Your task to perform on an android device: Open the stopwatch Image 0: 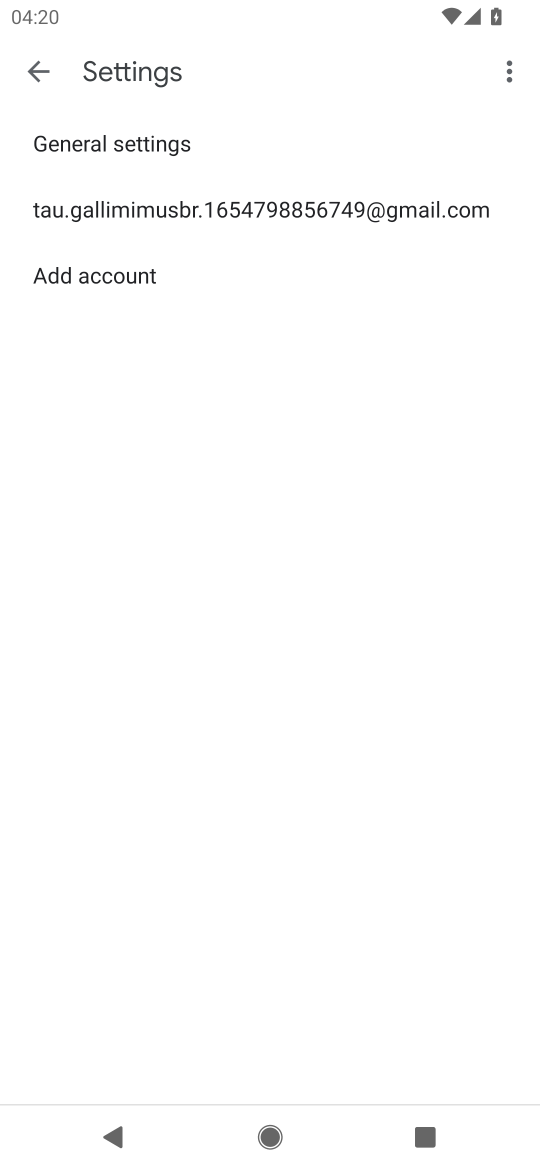
Step 0: press back button
Your task to perform on an android device: Open the stopwatch Image 1: 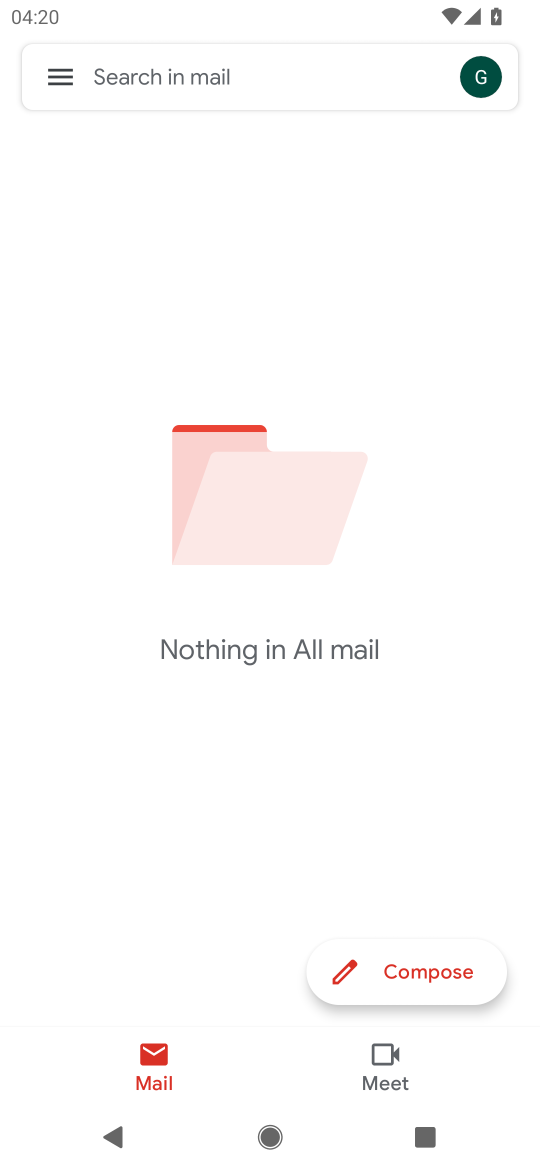
Step 1: press back button
Your task to perform on an android device: Open the stopwatch Image 2: 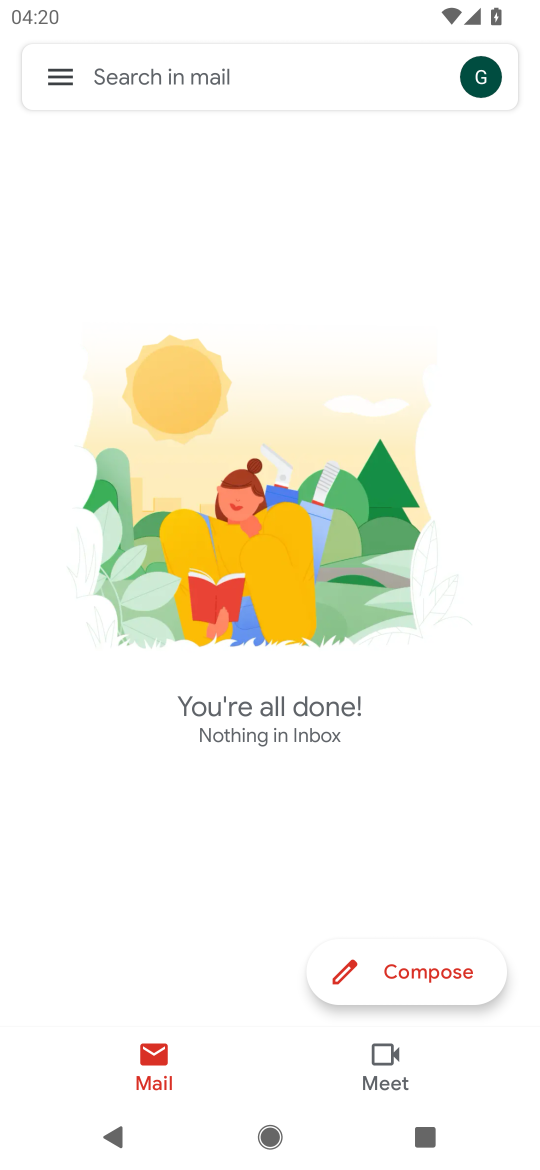
Step 2: press back button
Your task to perform on an android device: Open the stopwatch Image 3: 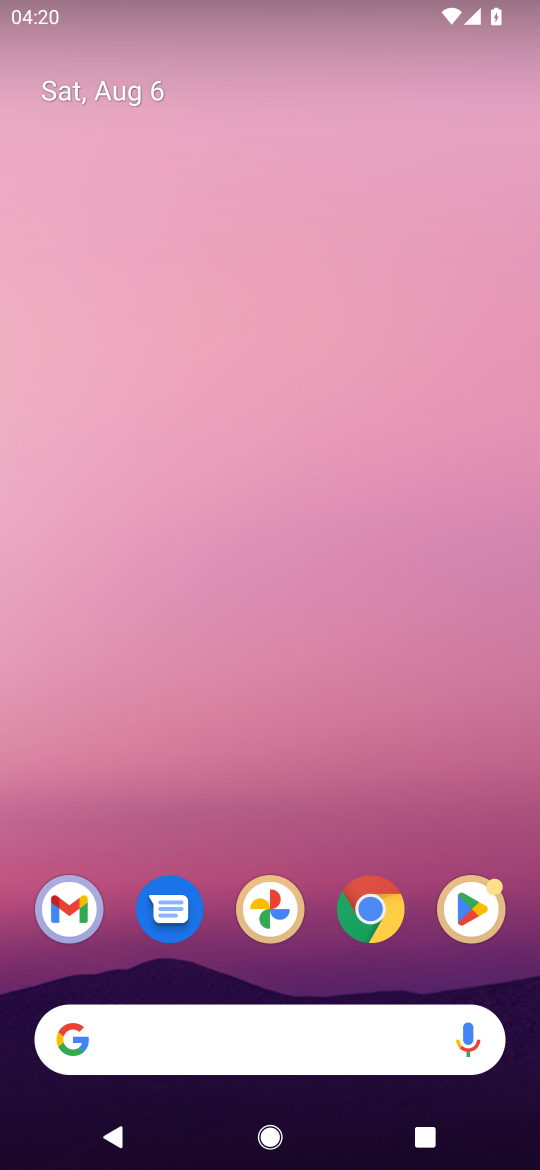
Step 3: drag from (316, 748) to (345, 83)
Your task to perform on an android device: Open the stopwatch Image 4: 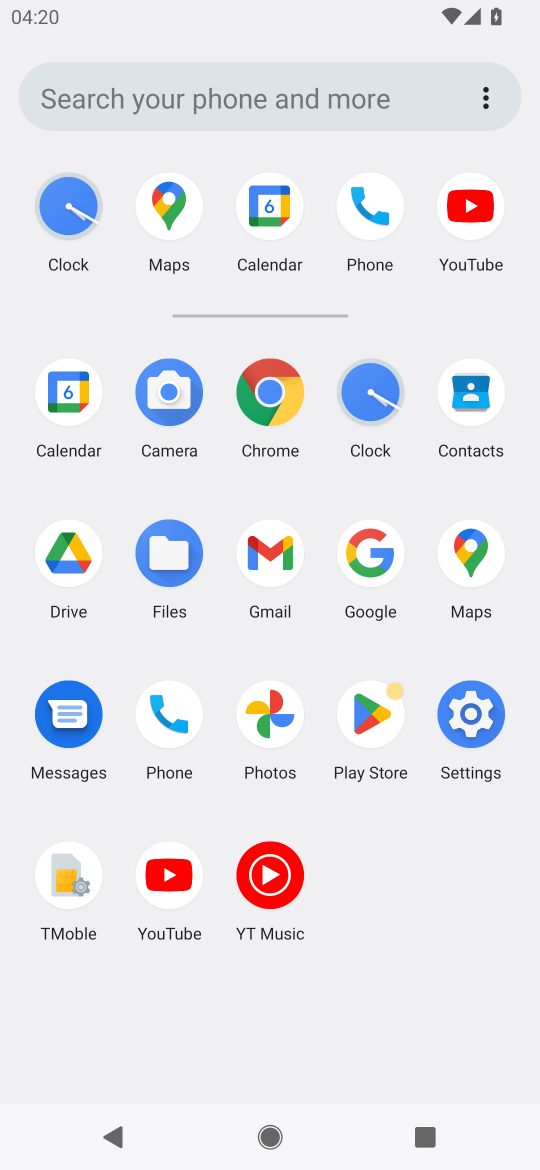
Step 4: click (360, 408)
Your task to perform on an android device: Open the stopwatch Image 5: 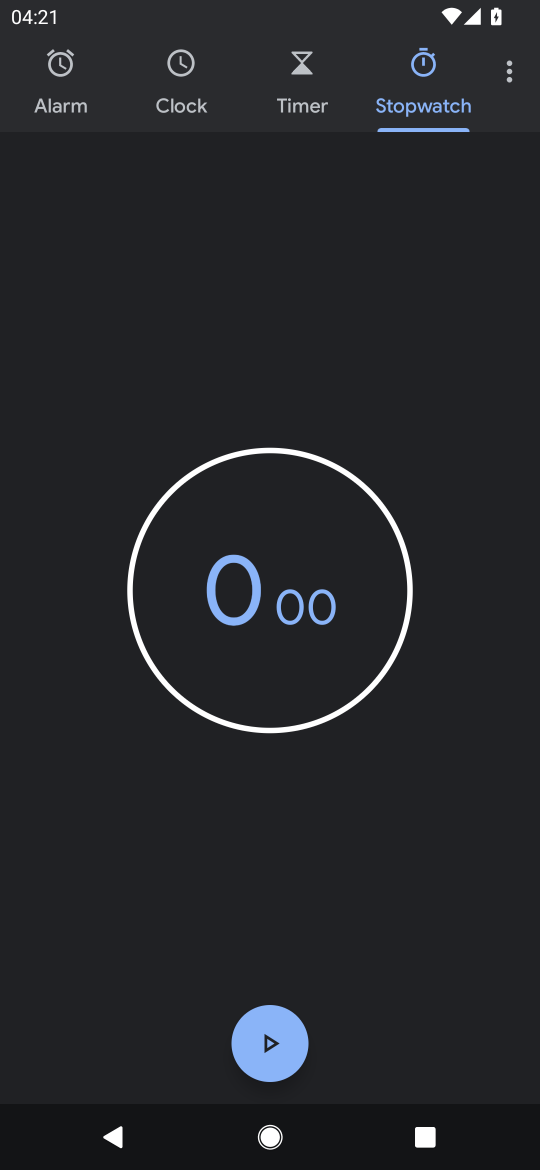
Step 5: task complete